Your task to perform on an android device: turn off notifications in google photos Image 0: 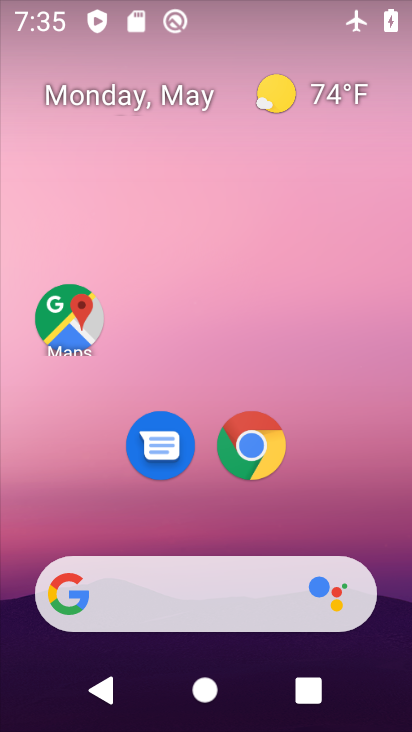
Step 0: drag from (169, 593) to (320, 89)
Your task to perform on an android device: turn off notifications in google photos Image 1: 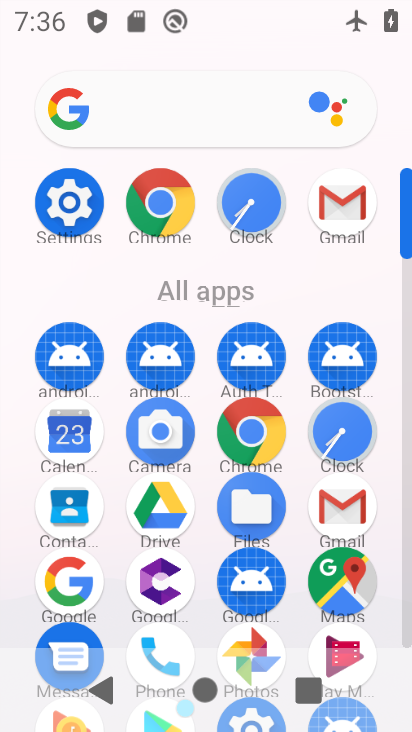
Step 1: drag from (198, 548) to (345, 133)
Your task to perform on an android device: turn off notifications in google photos Image 2: 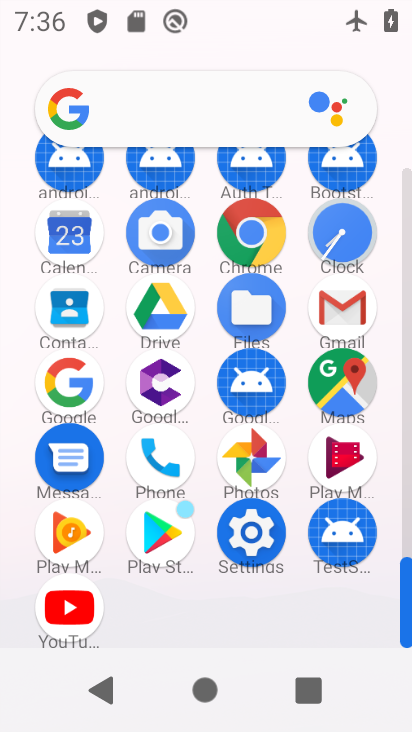
Step 2: click (249, 437)
Your task to perform on an android device: turn off notifications in google photos Image 3: 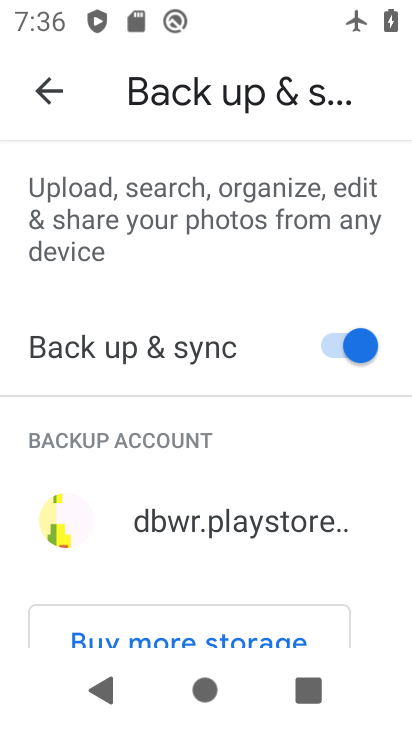
Step 3: click (42, 83)
Your task to perform on an android device: turn off notifications in google photos Image 4: 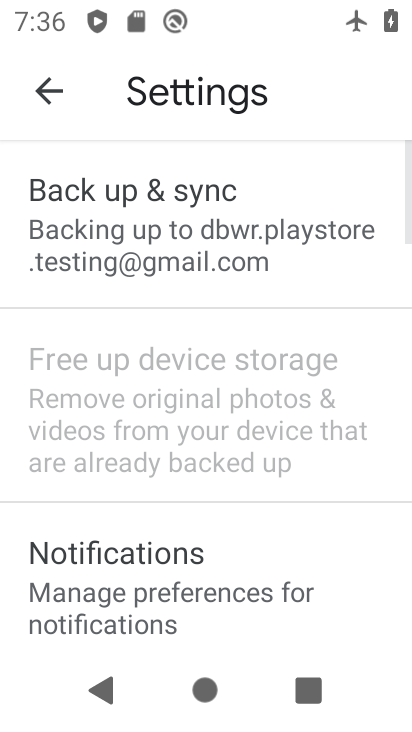
Step 4: drag from (187, 475) to (299, 176)
Your task to perform on an android device: turn off notifications in google photos Image 5: 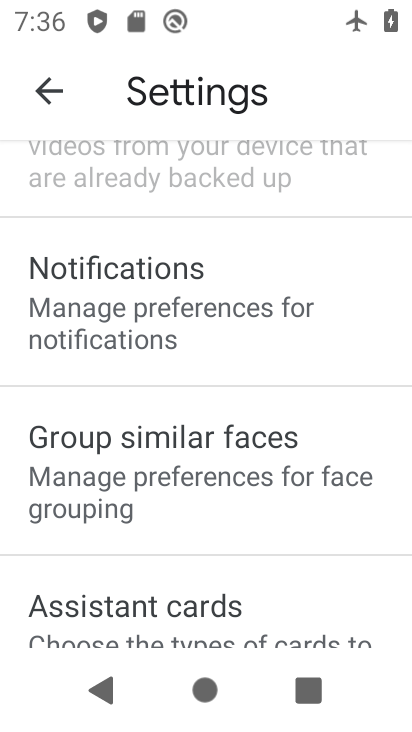
Step 5: click (188, 327)
Your task to perform on an android device: turn off notifications in google photos Image 6: 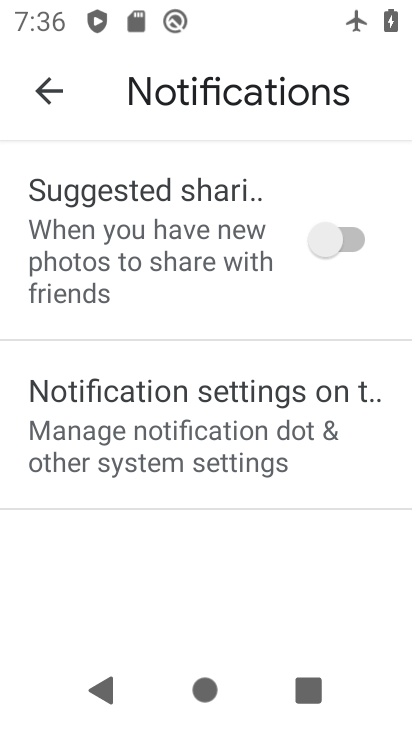
Step 6: click (221, 417)
Your task to perform on an android device: turn off notifications in google photos Image 7: 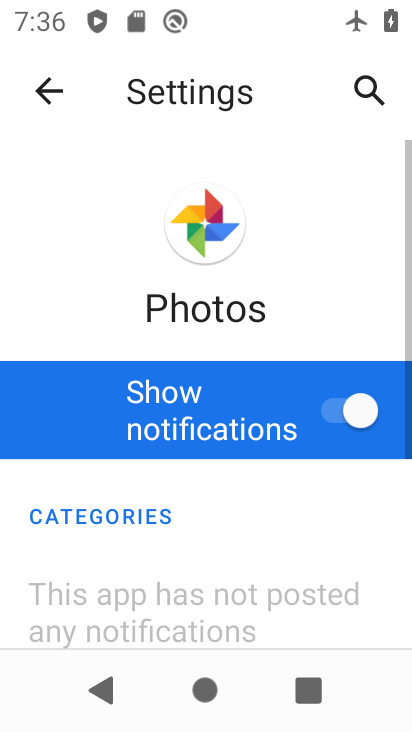
Step 7: drag from (205, 545) to (305, 207)
Your task to perform on an android device: turn off notifications in google photos Image 8: 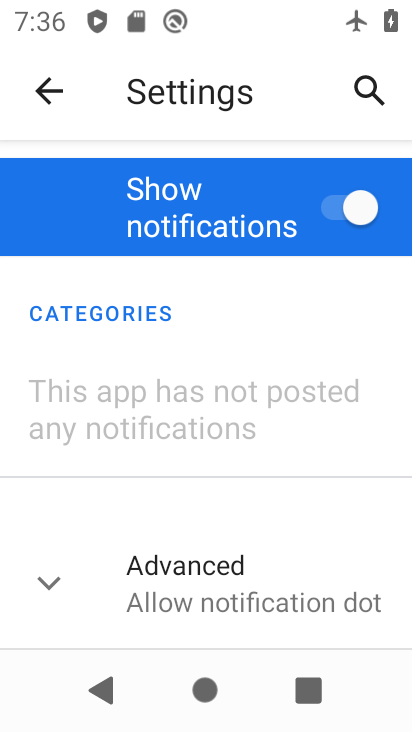
Step 8: click (331, 212)
Your task to perform on an android device: turn off notifications in google photos Image 9: 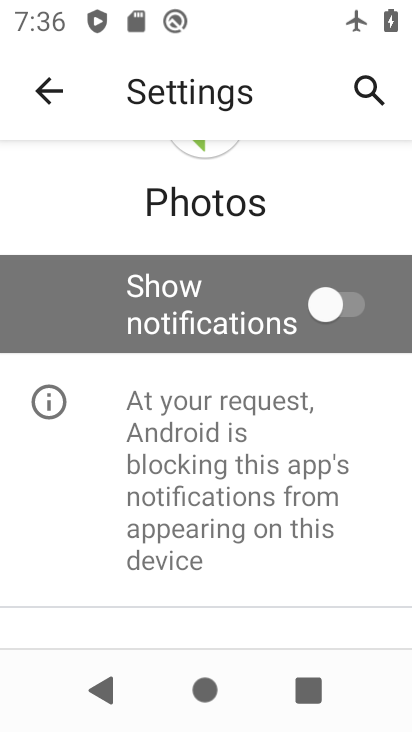
Step 9: task complete